Your task to perform on an android device: Open privacy settings Image 0: 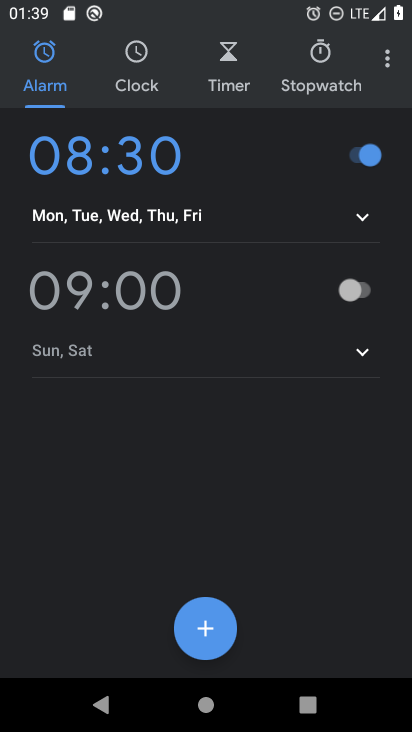
Step 0: press home button
Your task to perform on an android device: Open privacy settings Image 1: 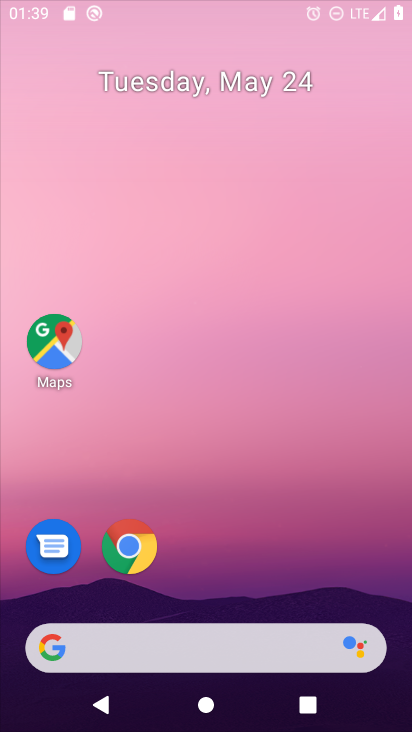
Step 1: drag from (284, 625) to (343, 36)
Your task to perform on an android device: Open privacy settings Image 2: 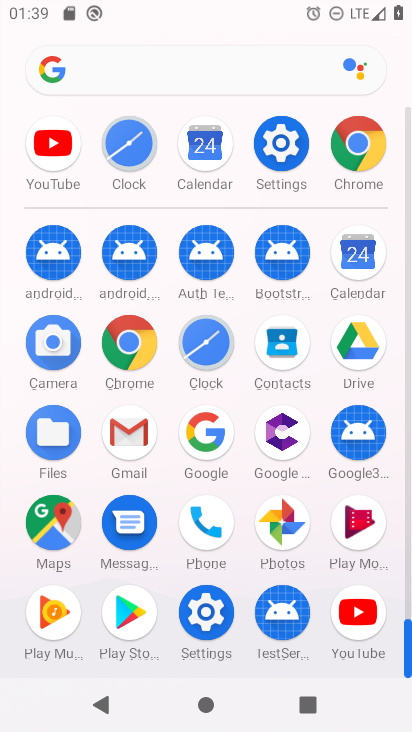
Step 2: click (274, 148)
Your task to perform on an android device: Open privacy settings Image 3: 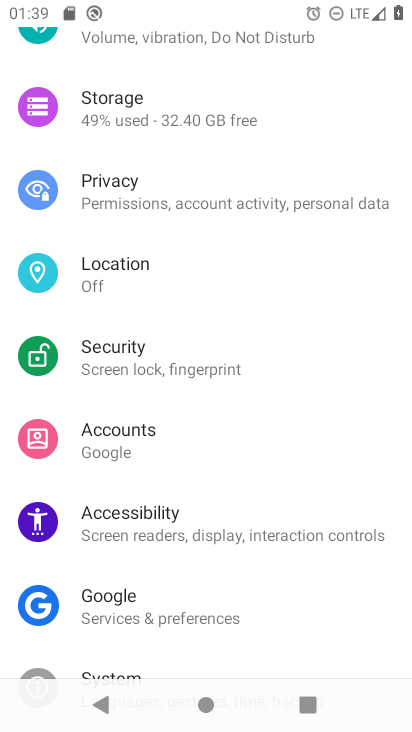
Step 3: click (158, 204)
Your task to perform on an android device: Open privacy settings Image 4: 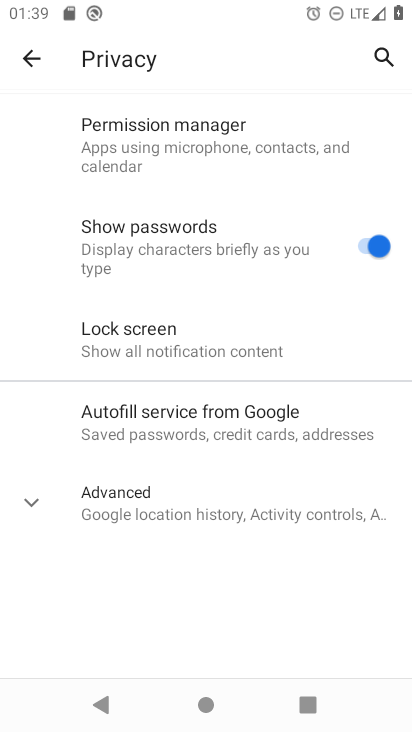
Step 4: task complete